Your task to perform on an android device: Open the Play Movies app and select the watchlist tab. Image 0: 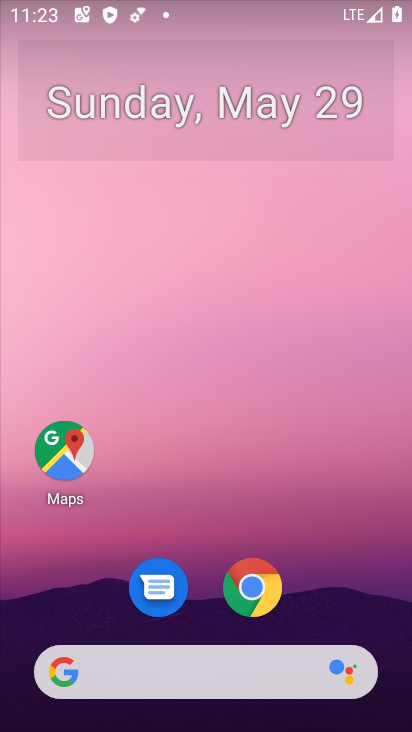
Step 0: drag from (339, 548) to (256, 136)
Your task to perform on an android device: Open the Play Movies app and select the watchlist tab. Image 1: 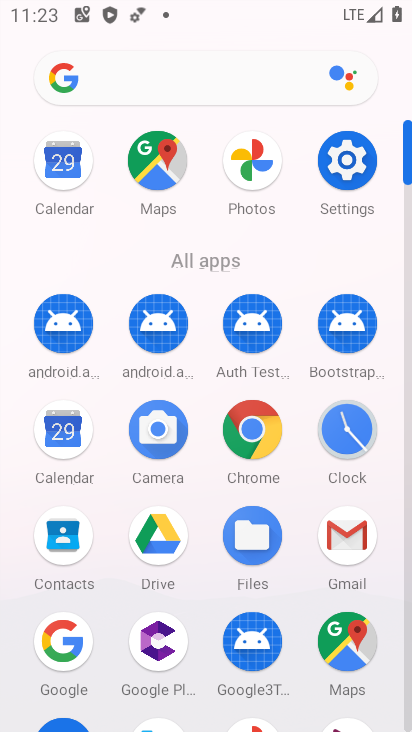
Step 1: drag from (316, 580) to (308, 230)
Your task to perform on an android device: Open the Play Movies app and select the watchlist tab. Image 2: 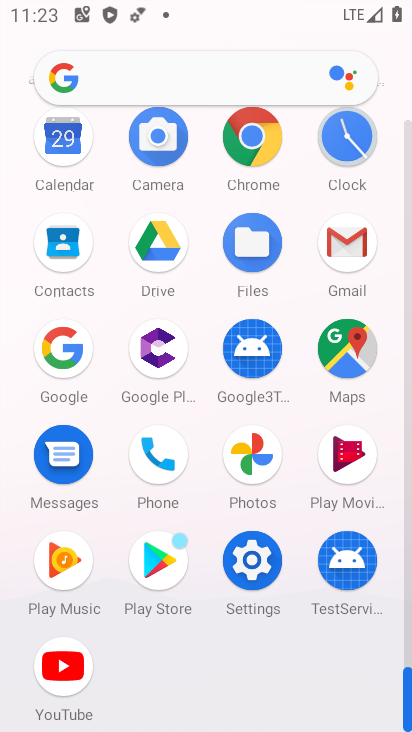
Step 2: click (338, 462)
Your task to perform on an android device: Open the Play Movies app and select the watchlist tab. Image 3: 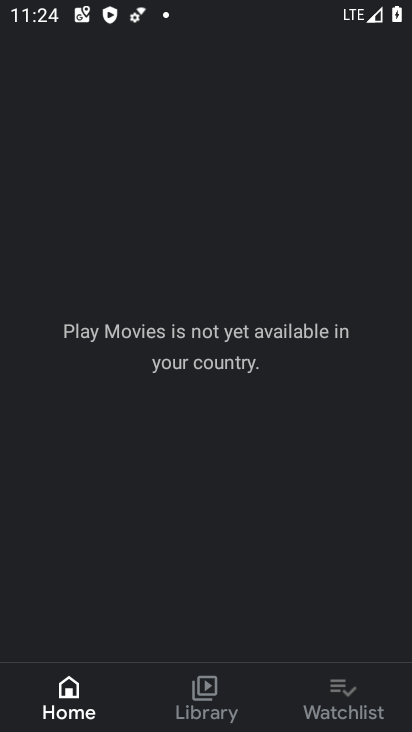
Step 3: click (347, 703)
Your task to perform on an android device: Open the Play Movies app and select the watchlist tab. Image 4: 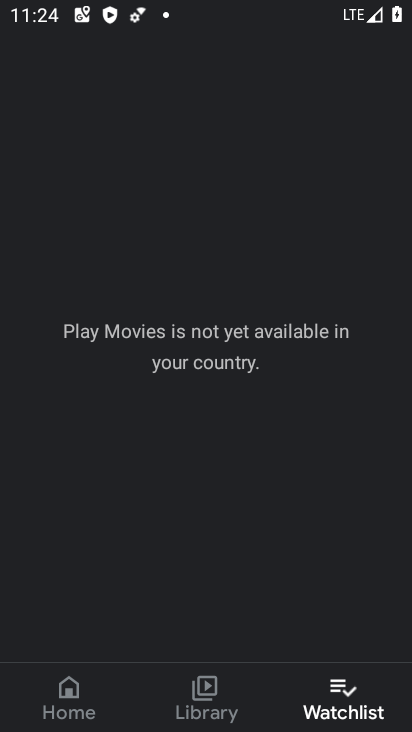
Step 4: task complete